Your task to perform on an android device: see tabs open on other devices in the chrome app Image 0: 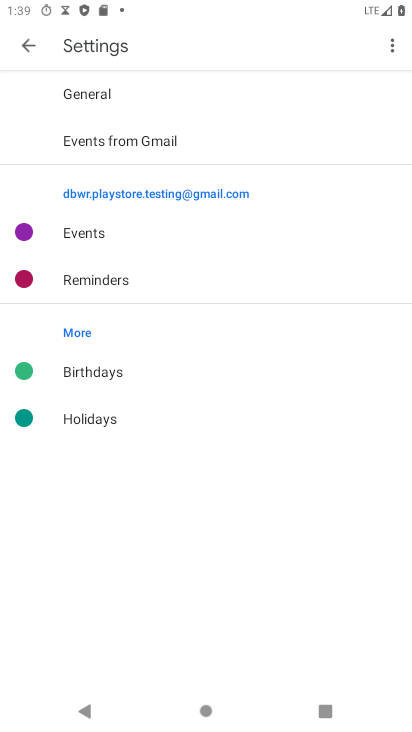
Step 0: press home button
Your task to perform on an android device: see tabs open on other devices in the chrome app Image 1: 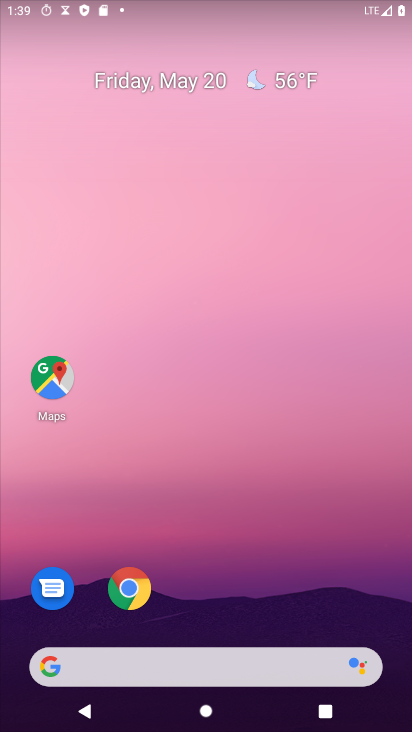
Step 1: drag from (13, 731) to (230, 73)
Your task to perform on an android device: see tabs open on other devices in the chrome app Image 2: 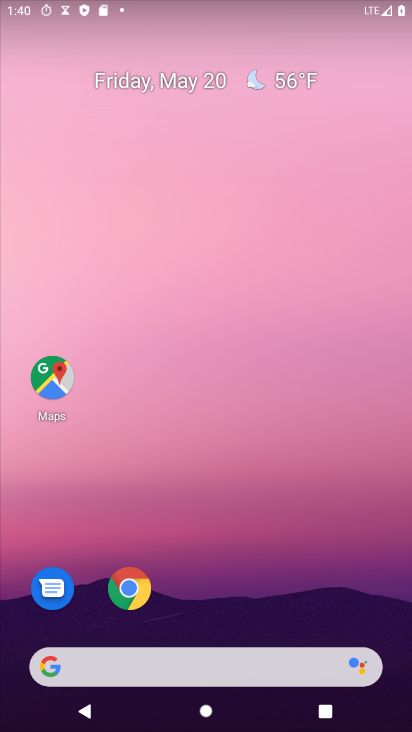
Step 2: drag from (48, 505) to (206, 111)
Your task to perform on an android device: see tabs open on other devices in the chrome app Image 3: 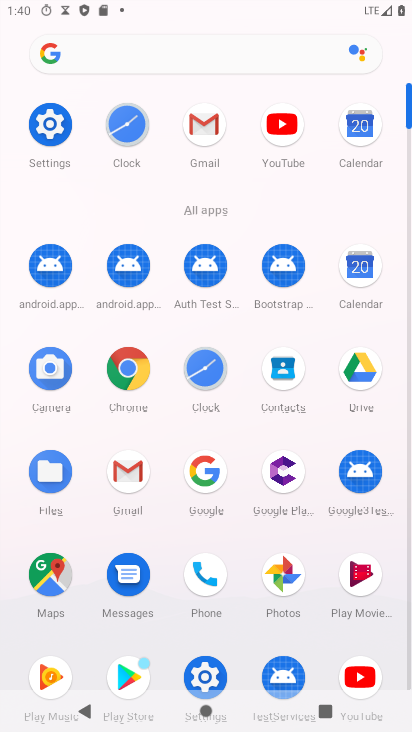
Step 3: click (121, 363)
Your task to perform on an android device: see tabs open on other devices in the chrome app Image 4: 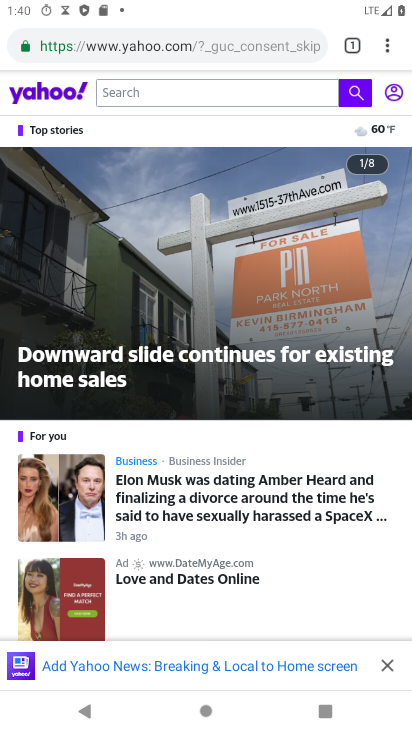
Step 4: click (390, 660)
Your task to perform on an android device: see tabs open on other devices in the chrome app Image 5: 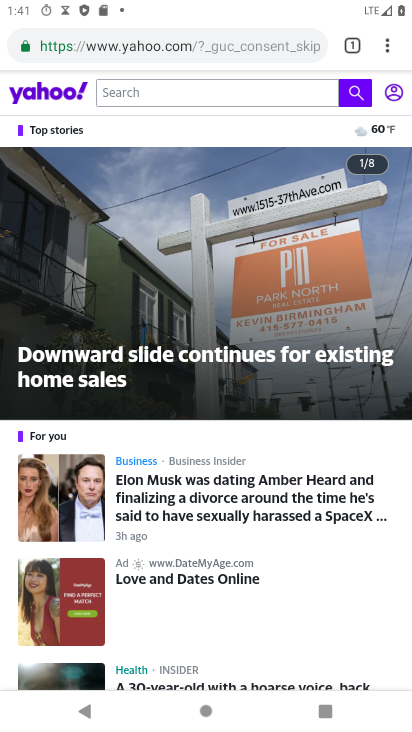
Step 5: click (354, 45)
Your task to perform on an android device: see tabs open on other devices in the chrome app Image 6: 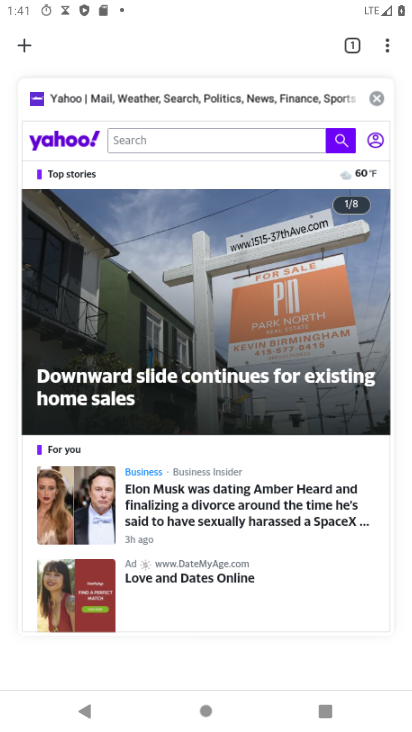
Step 6: click (22, 50)
Your task to perform on an android device: see tabs open on other devices in the chrome app Image 7: 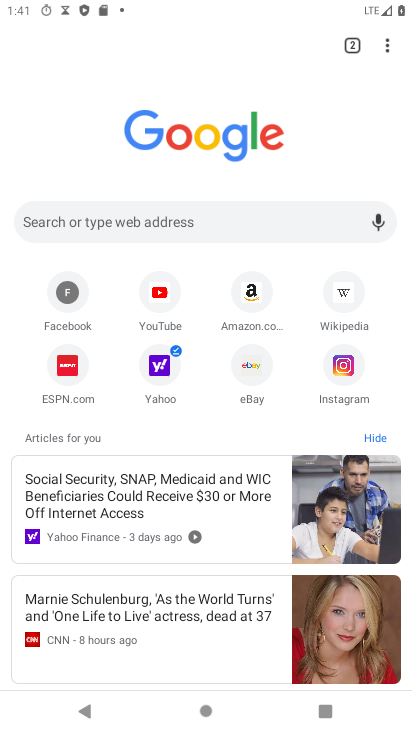
Step 7: task complete